Your task to perform on an android device: What's the weather today? Image 0: 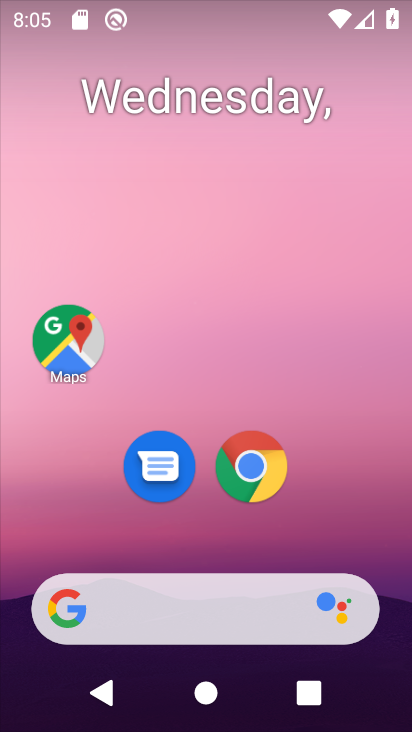
Step 0: drag from (228, 721) to (228, 107)
Your task to perform on an android device: What's the weather today? Image 1: 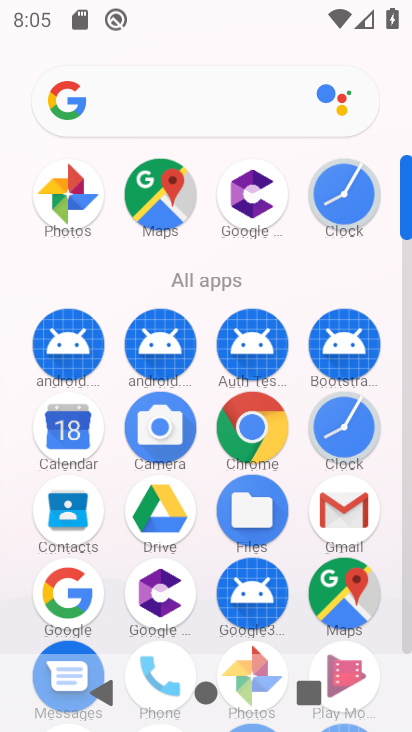
Step 1: click (72, 586)
Your task to perform on an android device: What's the weather today? Image 2: 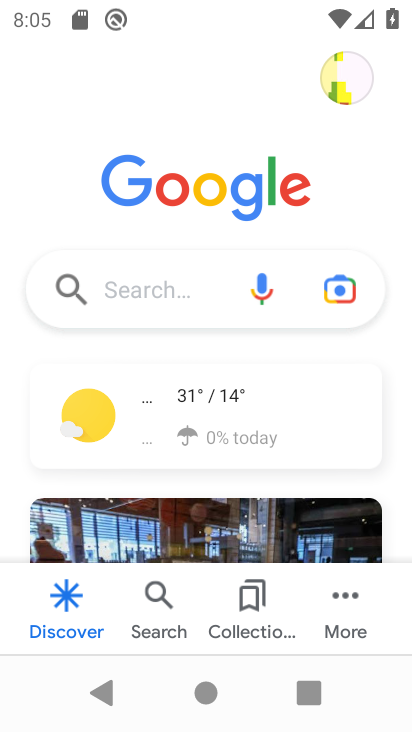
Step 2: click (188, 412)
Your task to perform on an android device: What's the weather today? Image 3: 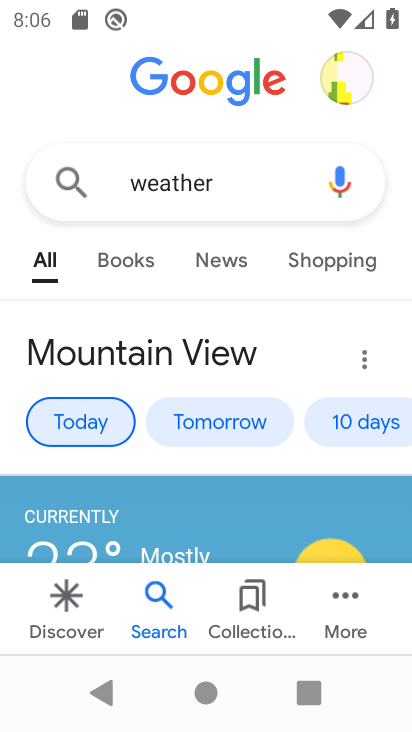
Step 3: click (104, 426)
Your task to perform on an android device: What's the weather today? Image 4: 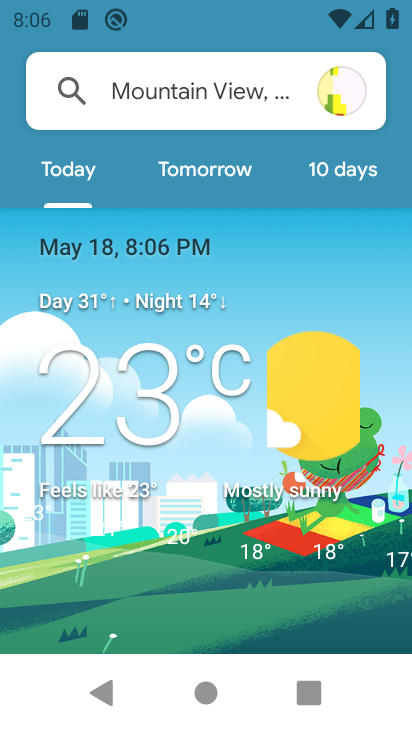
Step 4: task complete